Your task to perform on an android device: See recent photos Image 0: 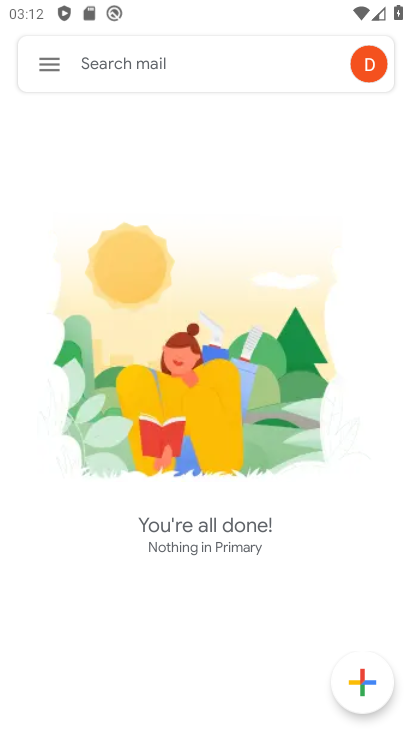
Step 0: press home button
Your task to perform on an android device: See recent photos Image 1: 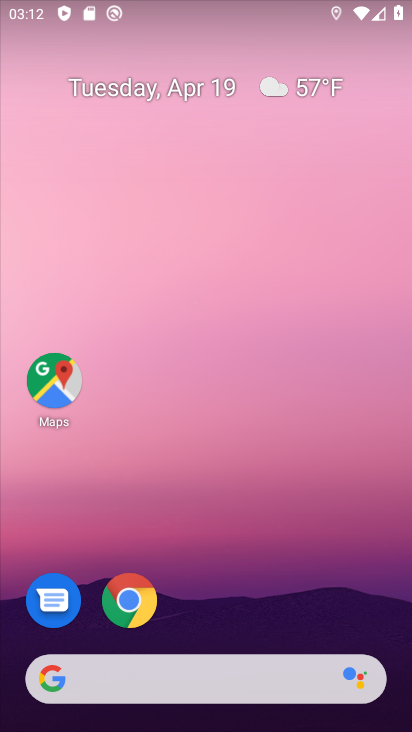
Step 1: drag from (333, 599) to (236, 144)
Your task to perform on an android device: See recent photos Image 2: 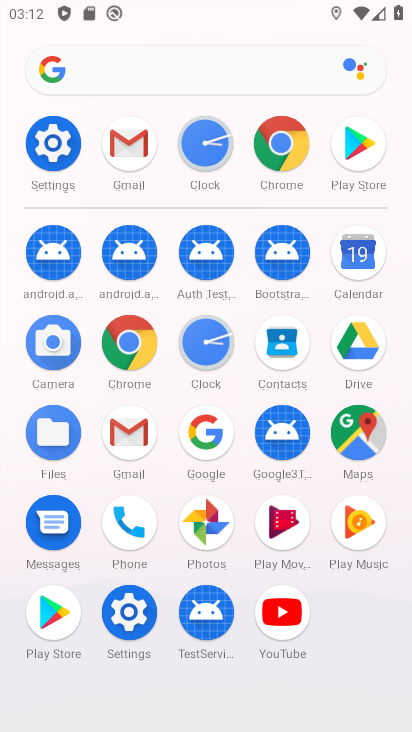
Step 2: click (204, 518)
Your task to perform on an android device: See recent photos Image 3: 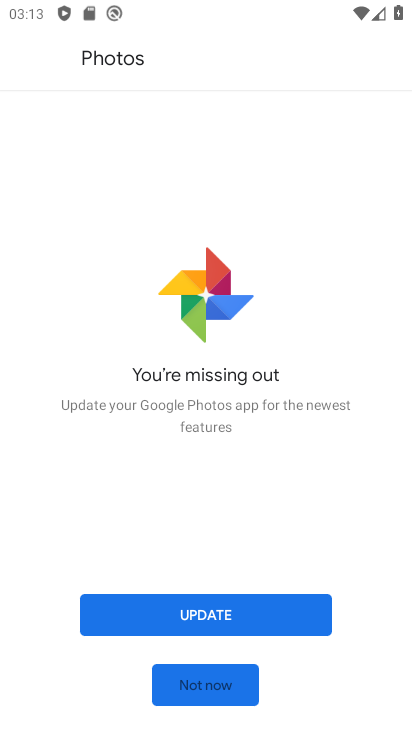
Step 3: click (223, 691)
Your task to perform on an android device: See recent photos Image 4: 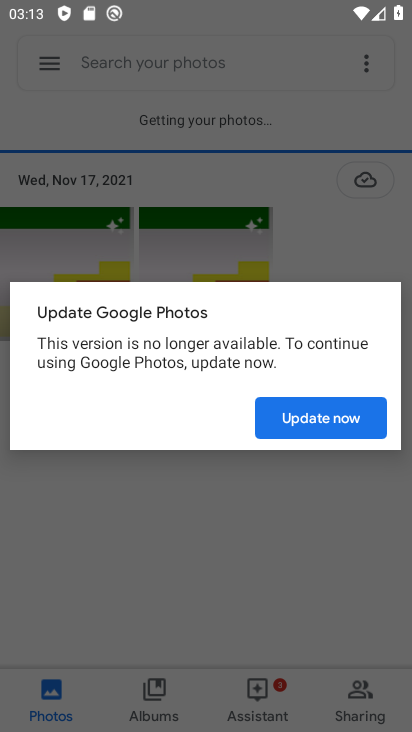
Step 4: click (330, 428)
Your task to perform on an android device: See recent photos Image 5: 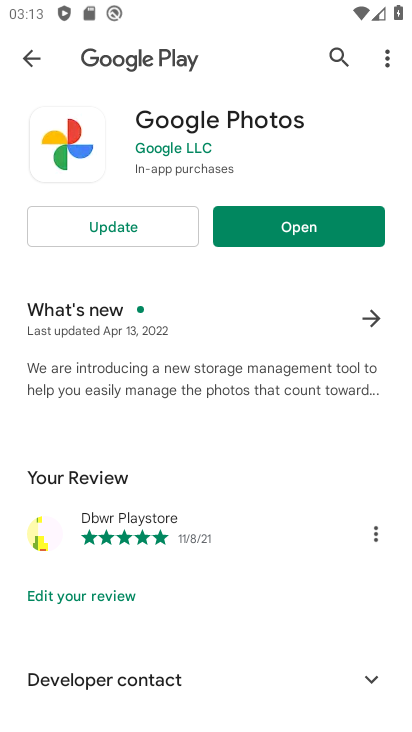
Step 5: click (120, 231)
Your task to perform on an android device: See recent photos Image 6: 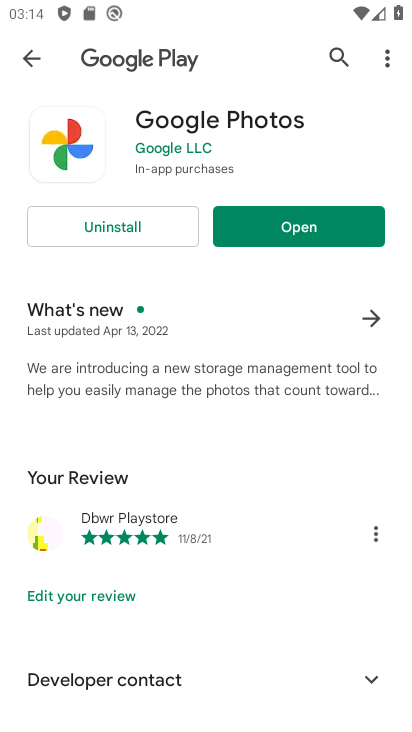
Step 6: click (301, 234)
Your task to perform on an android device: See recent photos Image 7: 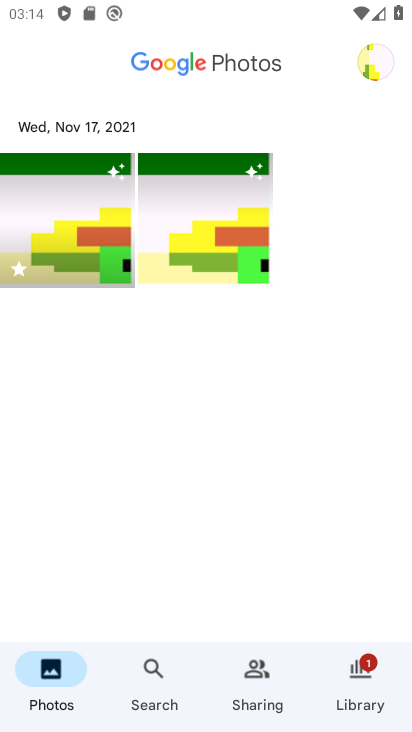
Step 7: task complete